Your task to perform on an android device: turn off sleep mode Image 0: 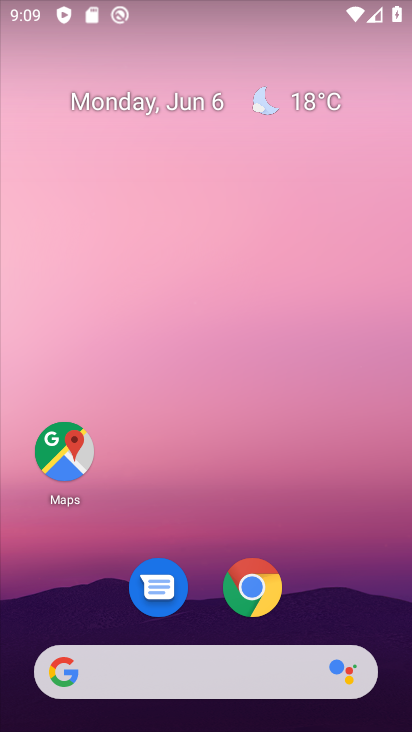
Step 0: drag from (336, 562) to (281, 194)
Your task to perform on an android device: turn off sleep mode Image 1: 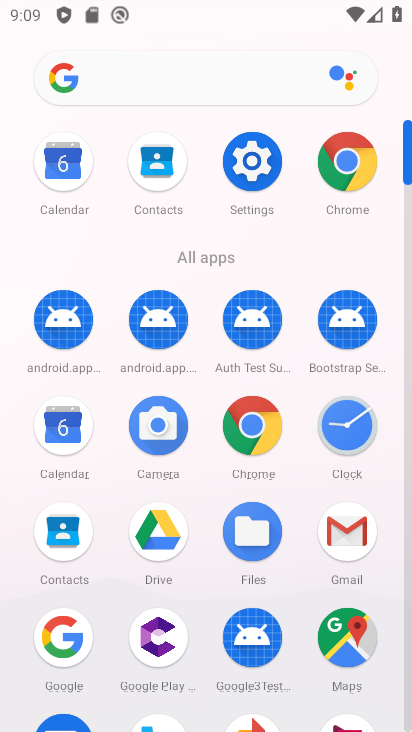
Step 1: click (255, 174)
Your task to perform on an android device: turn off sleep mode Image 2: 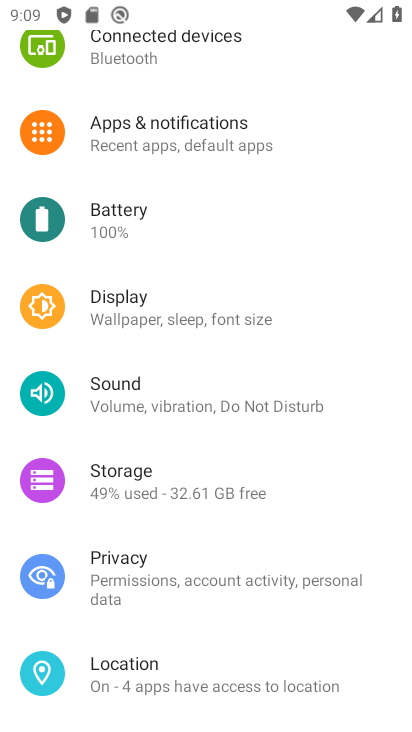
Step 2: click (182, 322)
Your task to perform on an android device: turn off sleep mode Image 3: 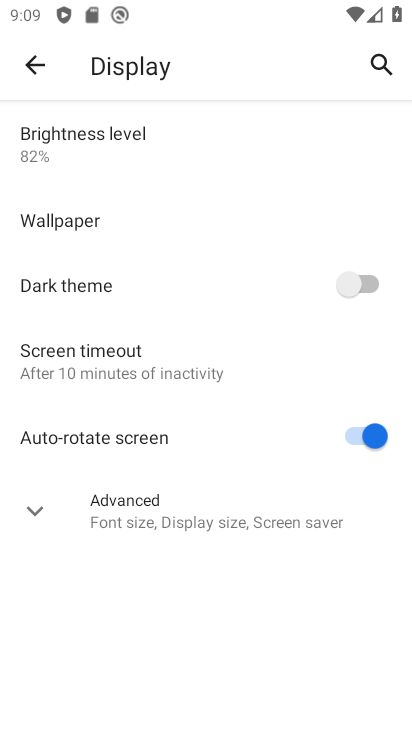
Step 3: click (126, 356)
Your task to perform on an android device: turn off sleep mode Image 4: 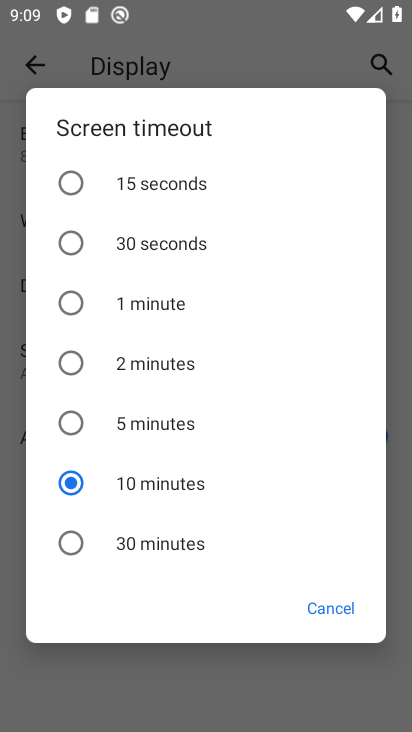
Step 4: task complete